Your task to perform on an android device: Turn on the flashlight Image 0: 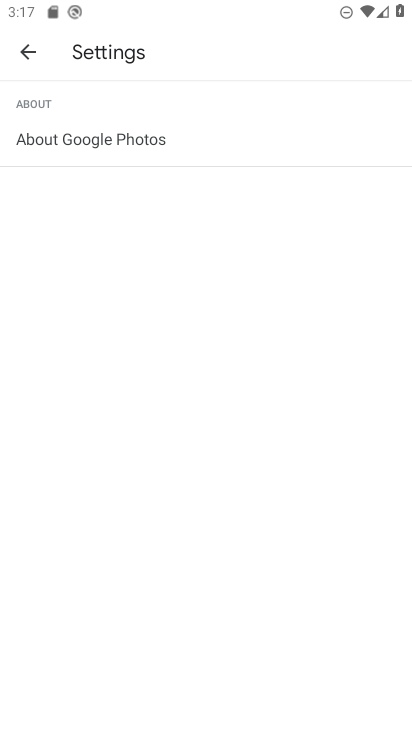
Step 0: drag from (257, 9) to (235, 399)
Your task to perform on an android device: Turn on the flashlight Image 1: 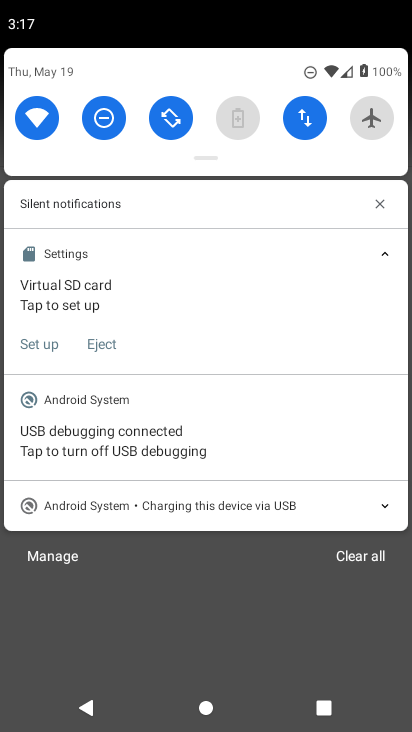
Step 1: drag from (272, 142) to (255, 439)
Your task to perform on an android device: Turn on the flashlight Image 2: 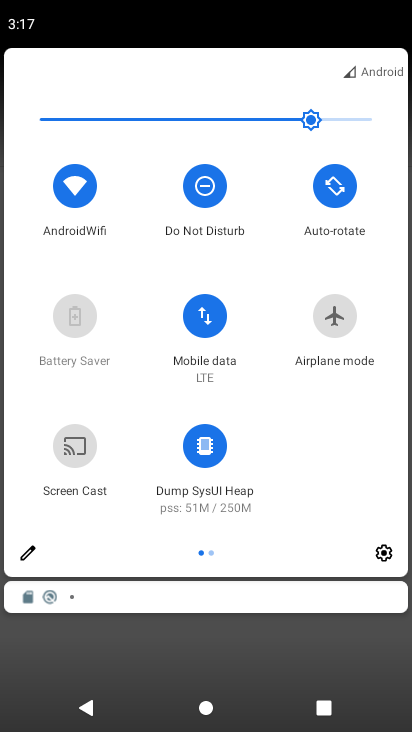
Step 2: click (14, 544)
Your task to perform on an android device: Turn on the flashlight Image 3: 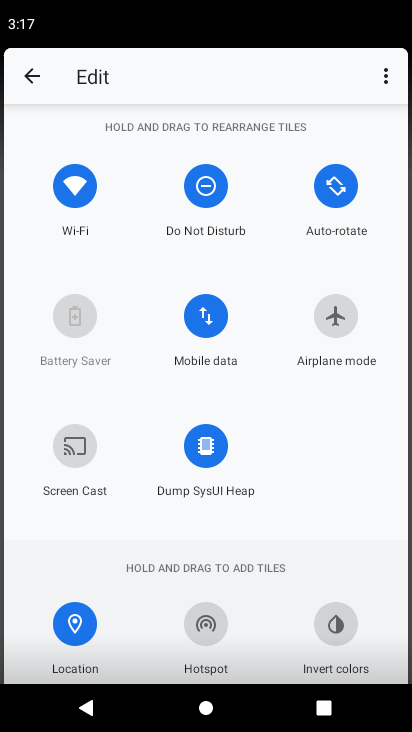
Step 3: task complete